Your task to perform on an android device: toggle notifications settings in the gmail app Image 0: 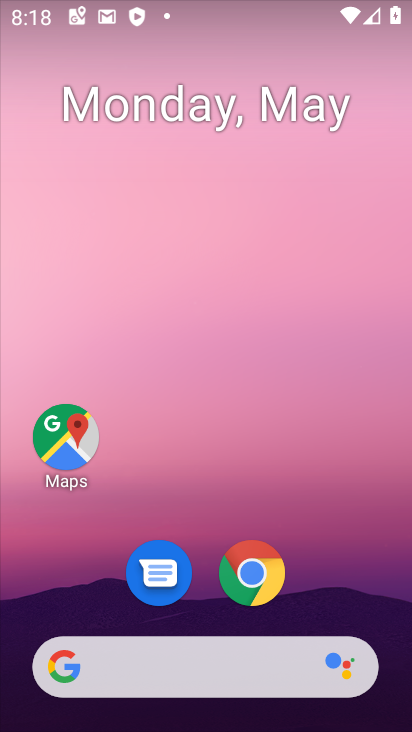
Step 0: drag from (210, 625) to (281, 250)
Your task to perform on an android device: toggle notifications settings in the gmail app Image 1: 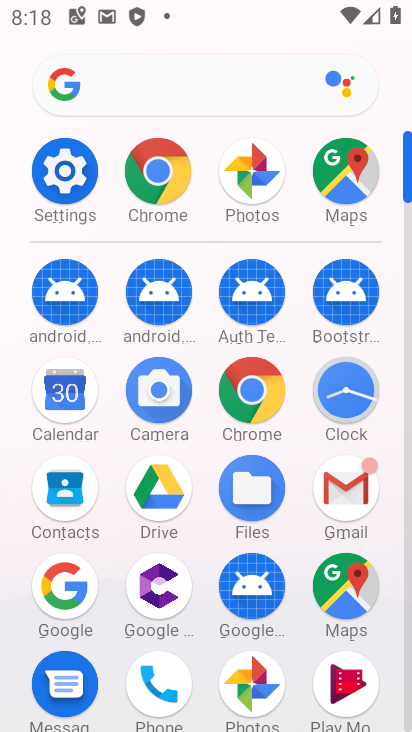
Step 1: click (349, 503)
Your task to perform on an android device: toggle notifications settings in the gmail app Image 2: 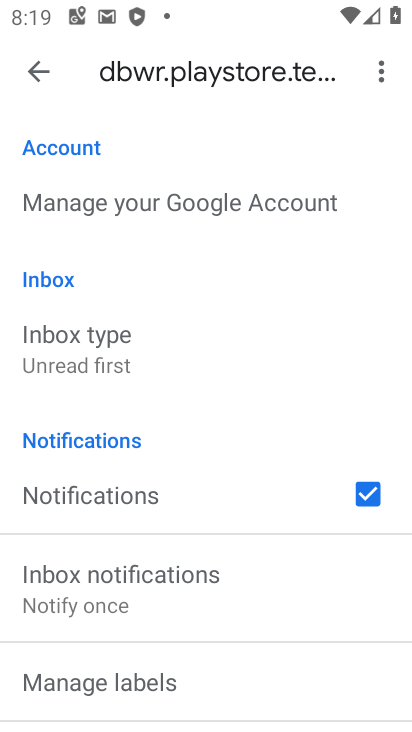
Step 2: click (19, 55)
Your task to perform on an android device: toggle notifications settings in the gmail app Image 3: 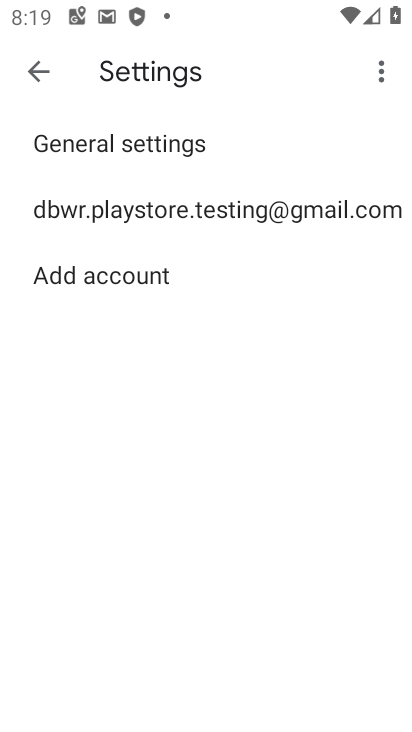
Step 3: click (213, 151)
Your task to perform on an android device: toggle notifications settings in the gmail app Image 4: 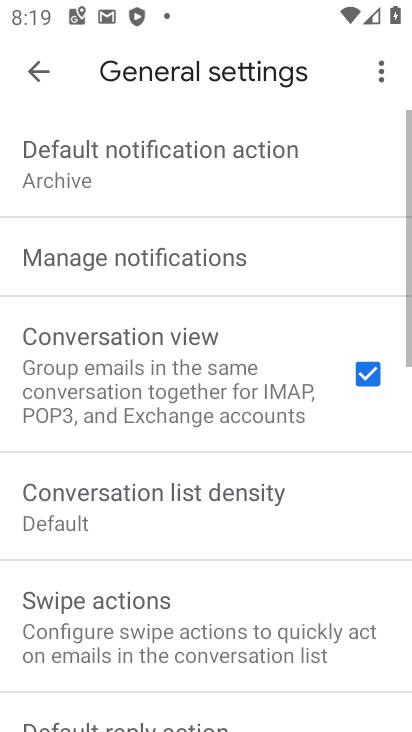
Step 4: click (194, 272)
Your task to perform on an android device: toggle notifications settings in the gmail app Image 5: 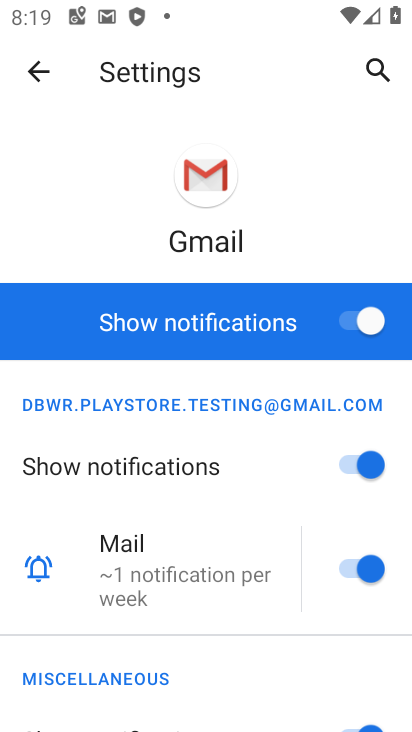
Step 5: click (352, 334)
Your task to perform on an android device: toggle notifications settings in the gmail app Image 6: 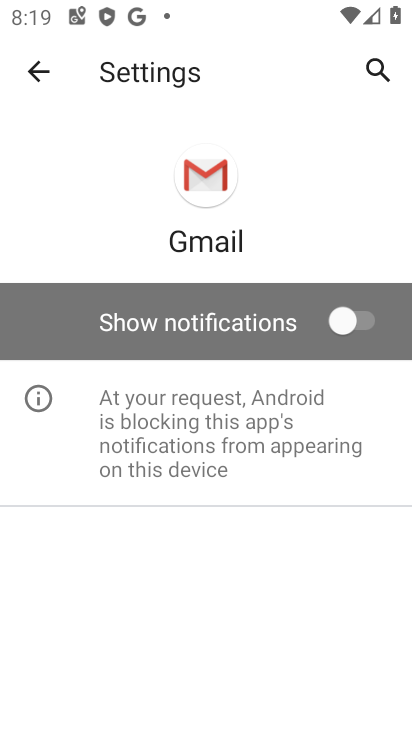
Step 6: task complete